Your task to perform on an android device: open app "Google Play Games" Image 0: 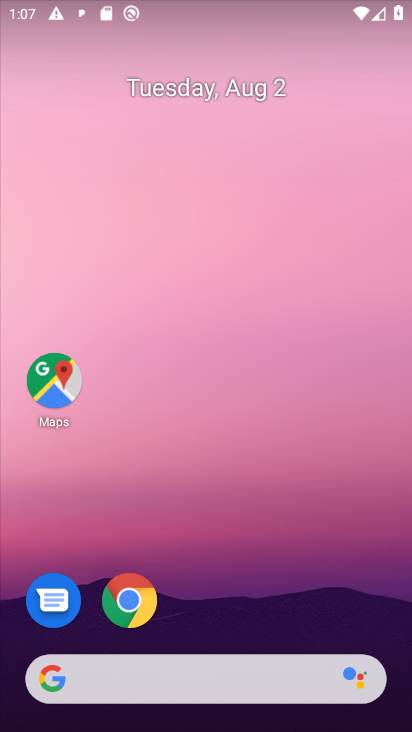
Step 0: drag from (279, 642) to (284, 6)
Your task to perform on an android device: open app "Google Play Games" Image 1: 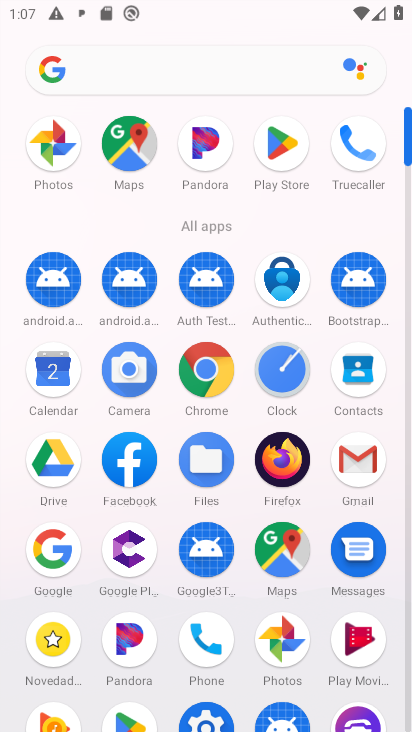
Step 1: drag from (304, 682) to (307, 222)
Your task to perform on an android device: open app "Google Play Games" Image 2: 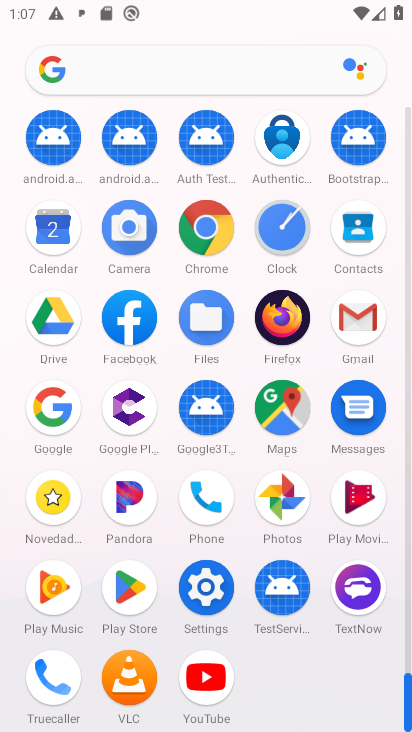
Step 2: click (129, 589)
Your task to perform on an android device: open app "Google Play Games" Image 3: 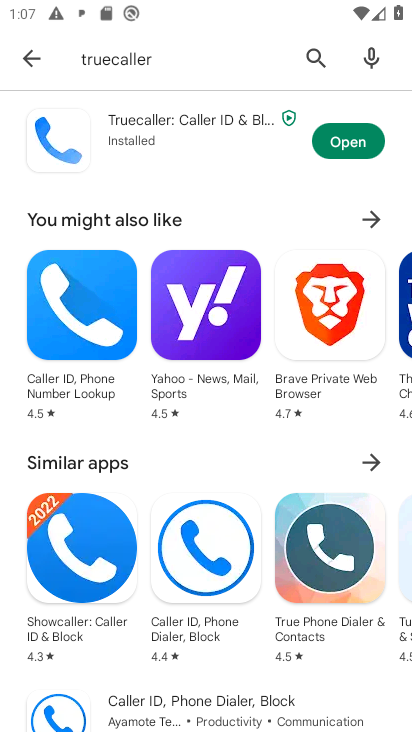
Step 3: click (314, 58)
Your task to perform on an android device: open app "Google Play Games" Image 4: 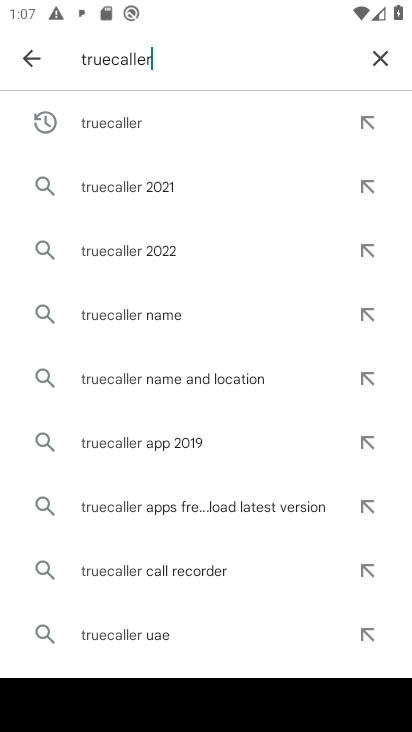
Step 4: click (385, 60)
Your task to perform on an android device: open app "Google Play Games" Image 5: 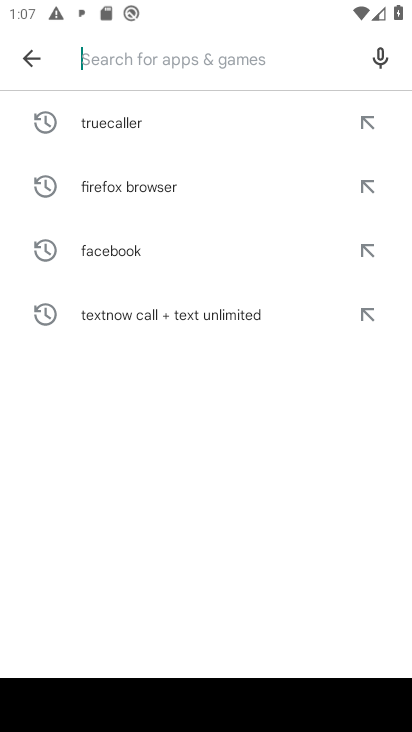
Step 5: click (117, 64)
Your task to perform on an android device: open app "Google Play Games" Image 6: 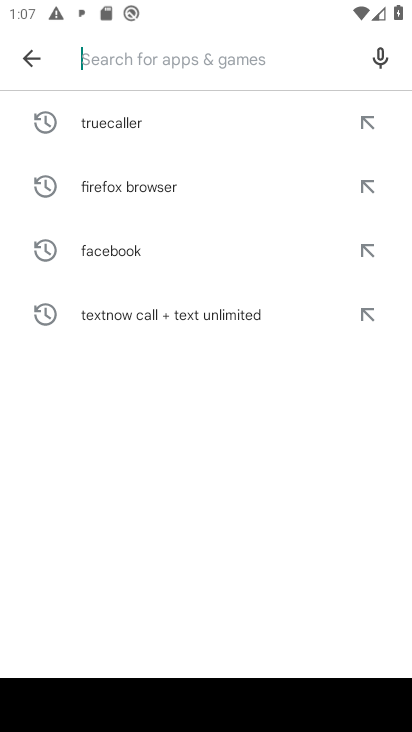
Step 6: click (117, 48)
Your task to perform on an android device: open app "Google Play Games" Image 7: 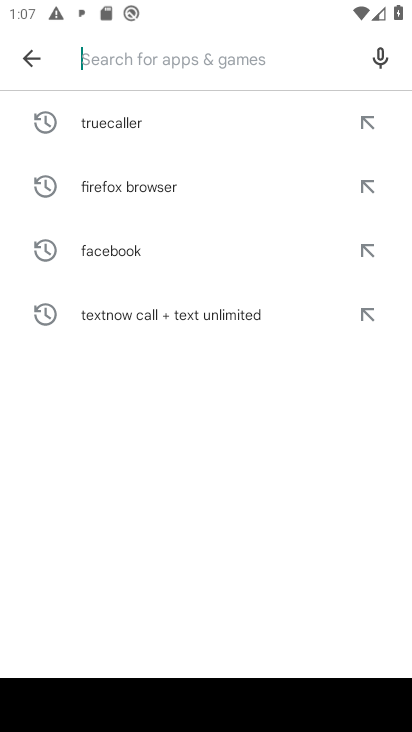
Step 7: click (87, 57)
Your task to perform on an android device: open app "Google Play Games" Image 8: 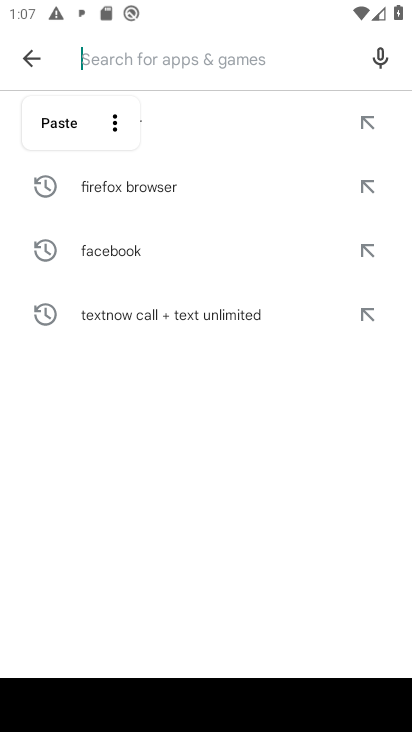
Step 8: type "Google Play Games"
Your task to perform on an android device: open app "Google Play Games" Image 9: 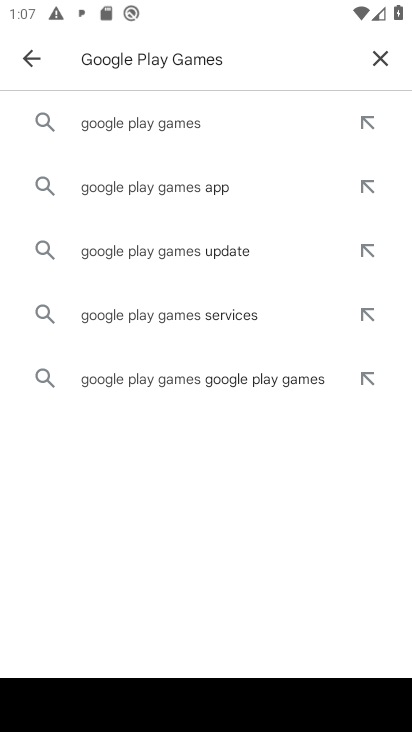
Step 9: click (132, 127)
Your task to perform on an android device: open app "Google Play Games" Image 10: 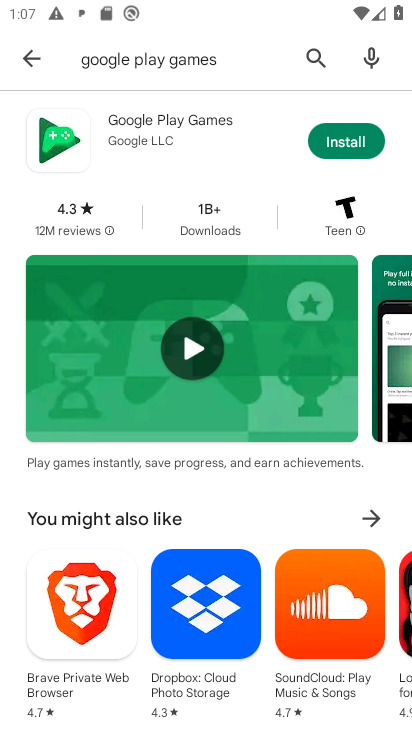
Step 10: click (347, 147)
Your task to perform on an android device: open app "Google Play Games" Image 11: 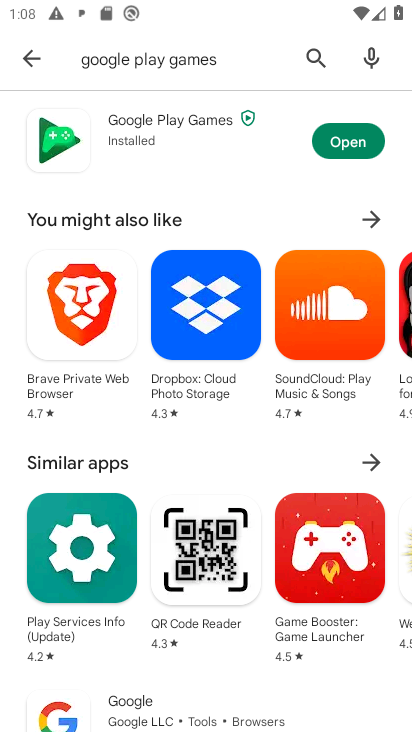
Step 11: click (358, 148)
Your task to perform on an android device: open app "Google Play Games" Image 12: 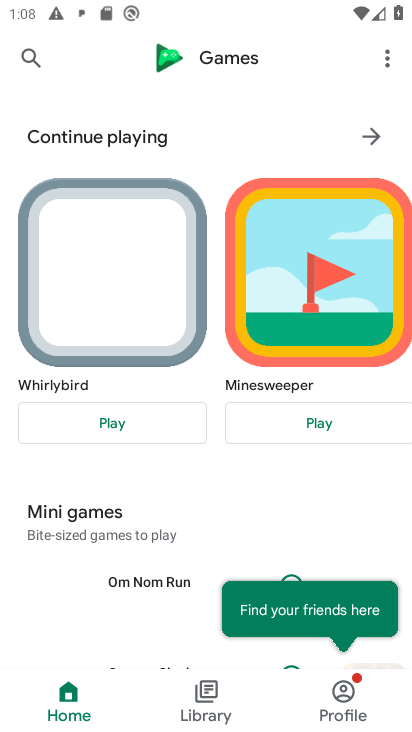
Step 12: task complete